Your task to perform on an android device: Is it going to rain tomorrow? Image 0: 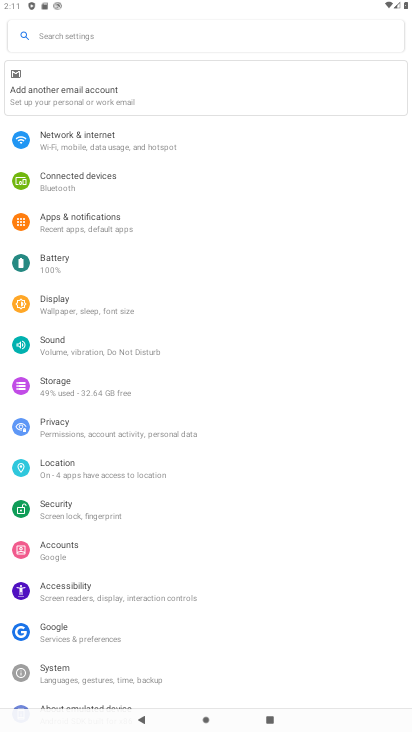
Step 0: press home button
Your task to perform on an android device: Is it going to rain tomorrow? Image 1: 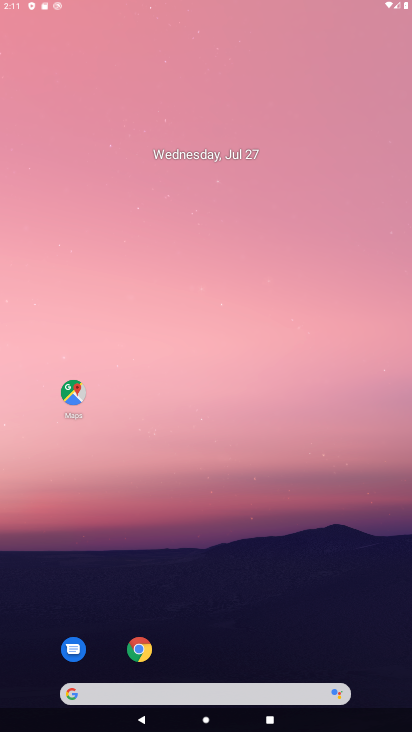
Step 1: drag from (371, 663) to (180, 58)
Your task to perform on an android device: Is it going to rain tomorrow? Image 2: 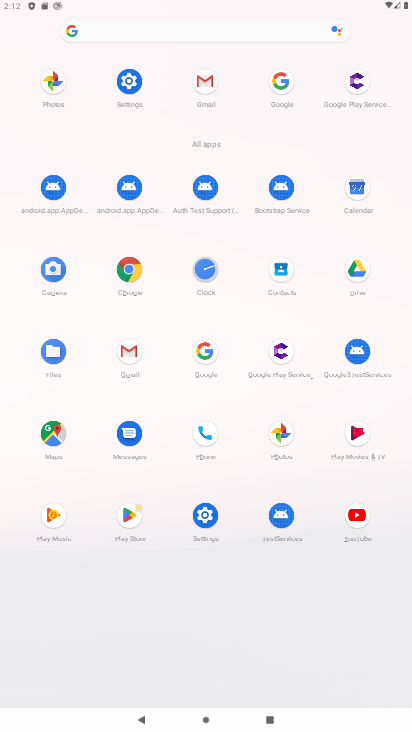
Step 2: click (199, 353)
Your task to perform on an android device: Is it going to rain tomorrow? Image 3: 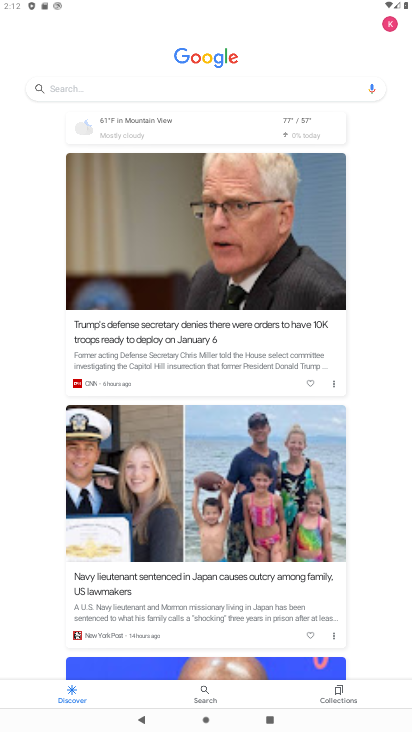
Step 3: click (94, 89)
Your task to perform on an android device: Is it going to rain tomorrow? Image 4: 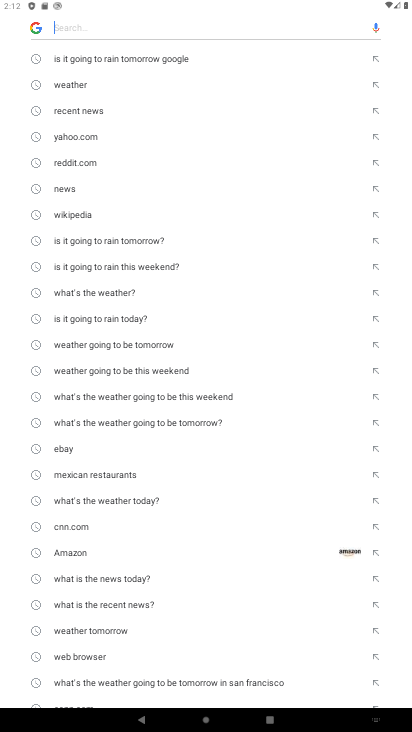
Step 4: type "Is it going to rain tomorrow?"
Your task to perform on an android device: Is it going to rain tomorrow? Image 5: 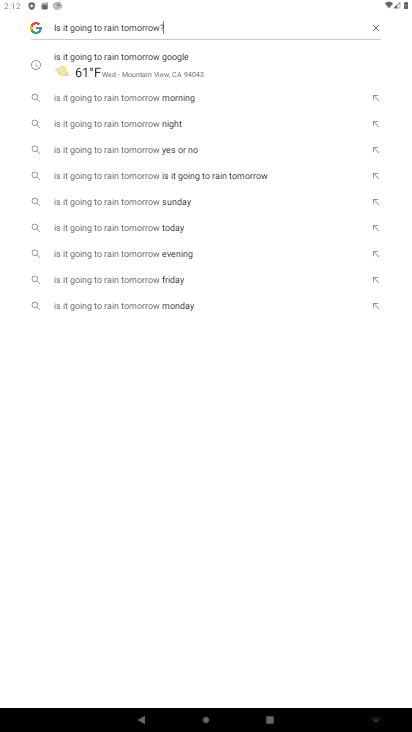
Step 5: click (96, 72)
Your task to perform on an android device: Is it going to rain tomorrow? Image 6: 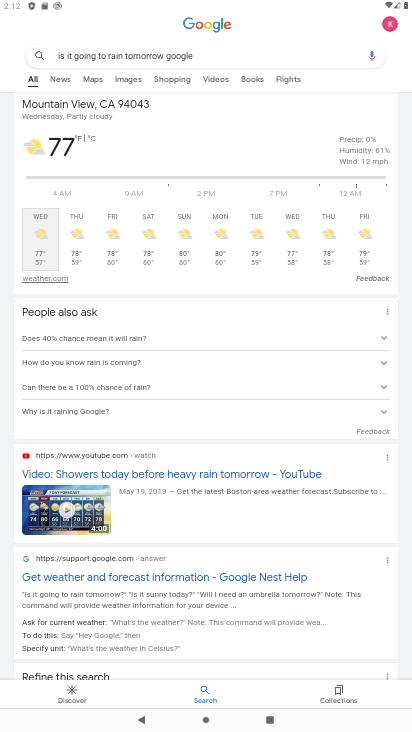
Step 6: task complete